Your task to perform on an android device: delete location history Image 0: 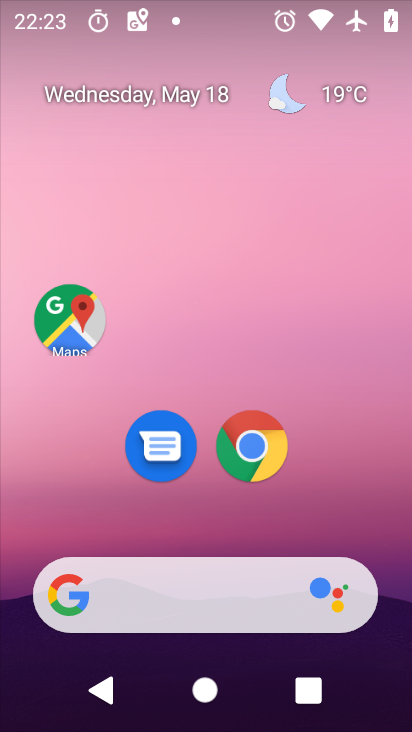
Step 0: press home button
Your task to perform on an android device: delete location history Image 1: 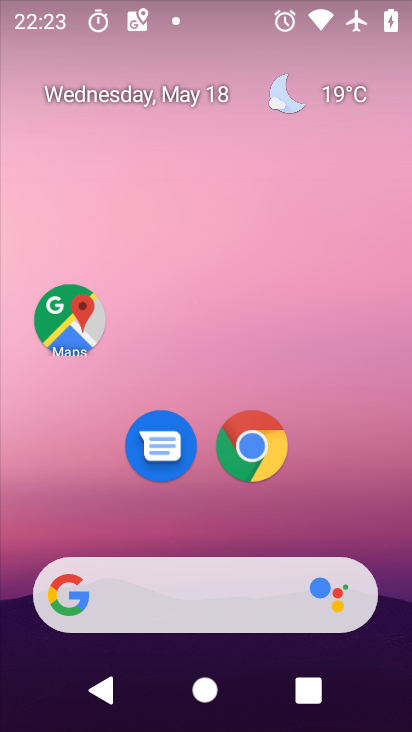
Step 1: drag from (182, 599) to (287, 160)
Your task to perform on an android device: delete location history Image 2: 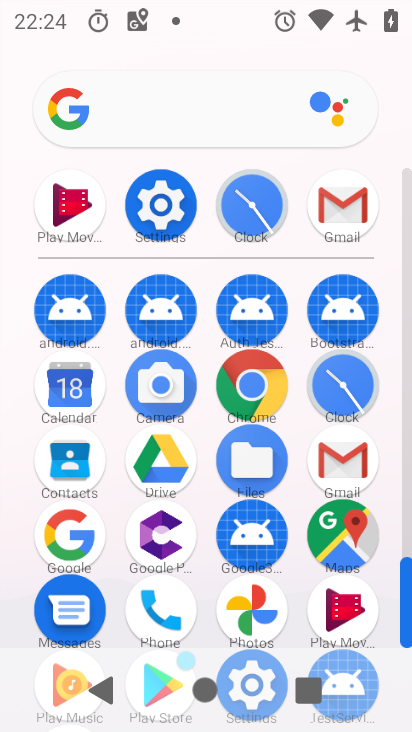
Step 2: click (344, 539)
Your task to perform on an android device: delete location history Image 3: 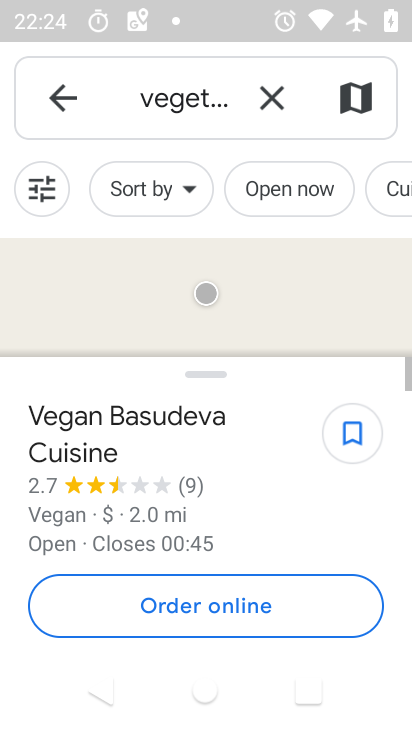
Step 3: click (62, 103)
Your task to perform on an android device: delete location history Image 4: 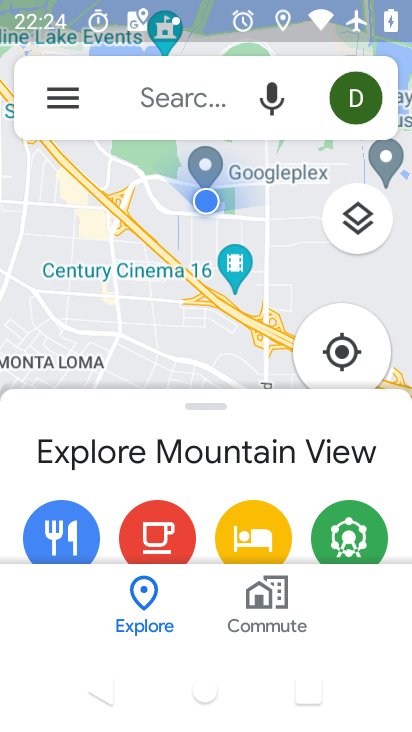
Step 4: click (70, 86)
Your task to perform on an android device: delete location history Image 5: 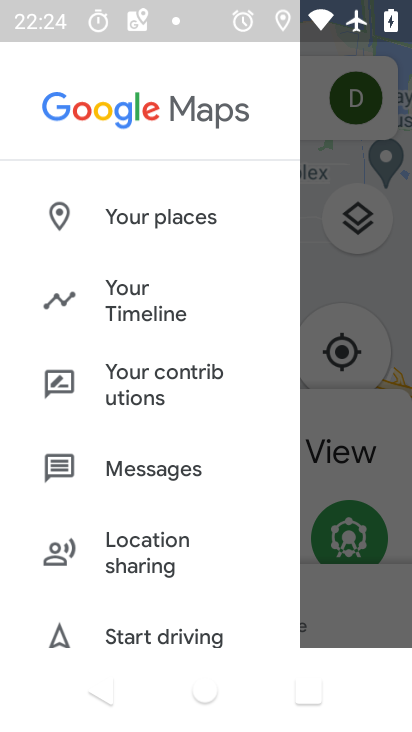
Step 5: click (147, 285)
Your task to perform on an android device: delete location history Image 6: 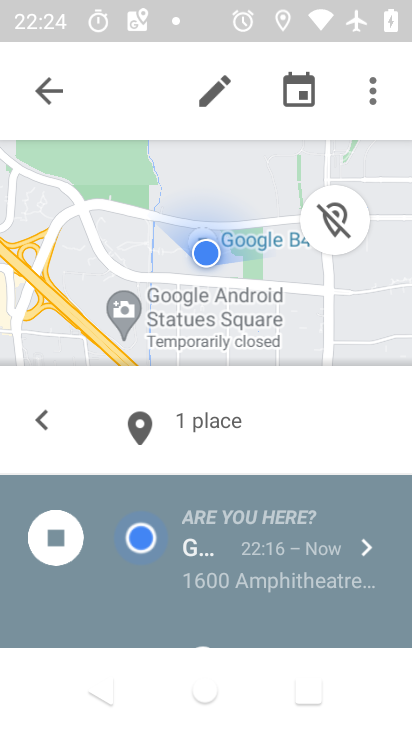
Step 6: click (373, 100)
Your task to perform on an android device: delete location history Image 7: 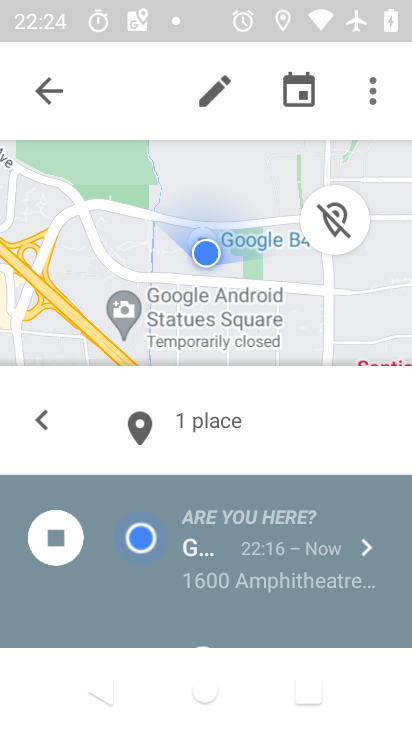
Step 7: click (368, 98)
Your task to perform on an android device: delete location history Image 8: 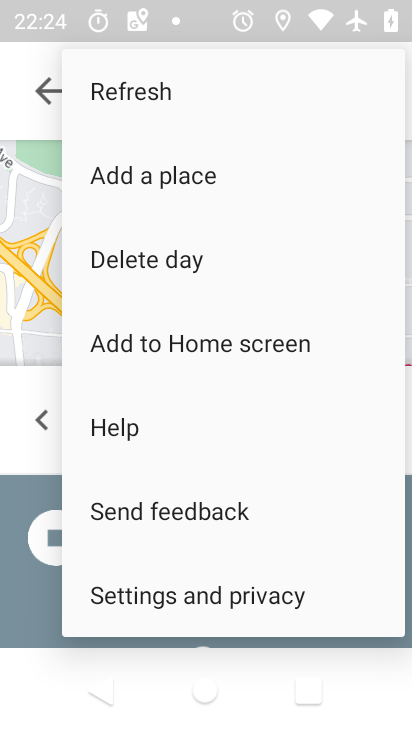
Step 8: click (172, 580)
Your task to perform on an android device: delete location history Image 9: 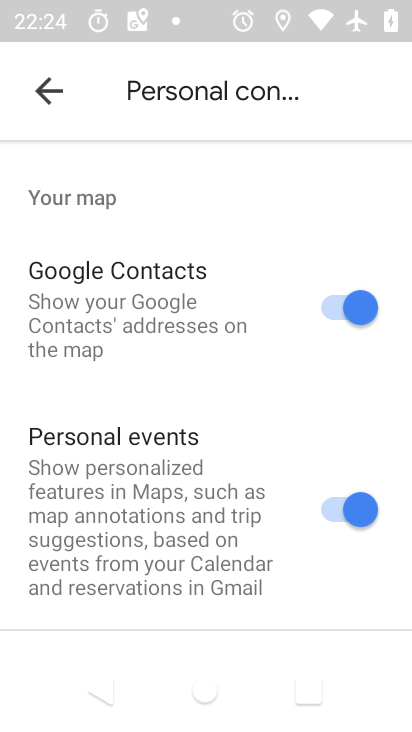
Step 9: drag from (158, 606) to (307, 159)
Your task to perform on an android device: delete location history Image 10: 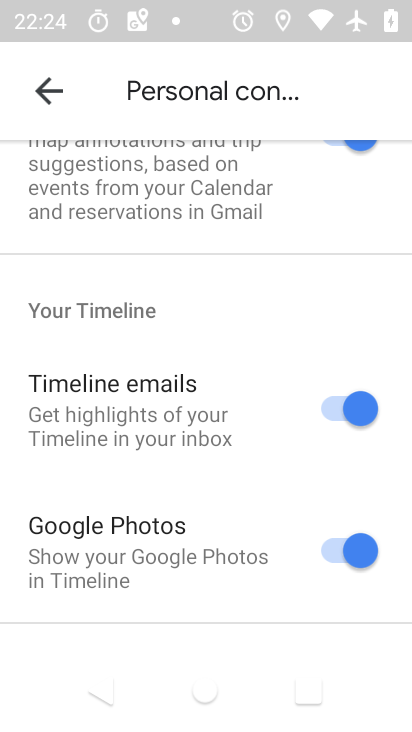
Step 10: drag from (187, 589) to (312, 172)
Your task to perform on an android device: delete location history Image 11: 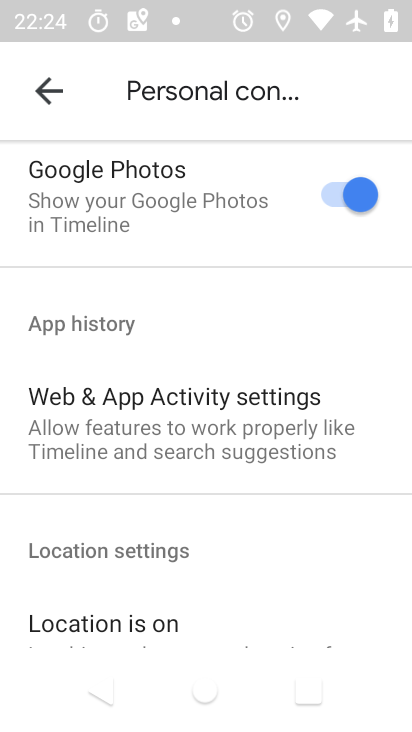
Step 11: drag from (176, 523) to (391, 66)
Your task to perform on an android device: delete location history Image 12: 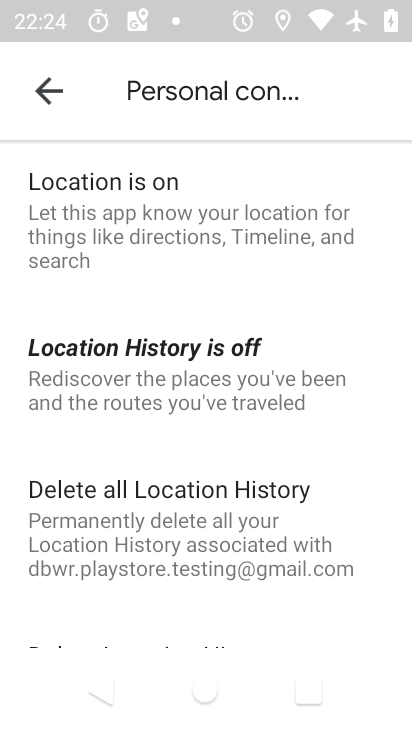
Step 12: click (201, 519)
Your task to perform on an android device: delete location history Image 13: 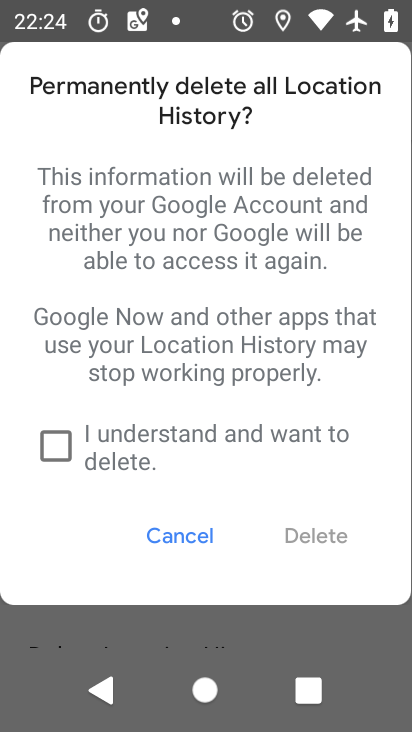
Step 13: click (64, 441)
Your task to perform on an android device: delete location history Image 14: 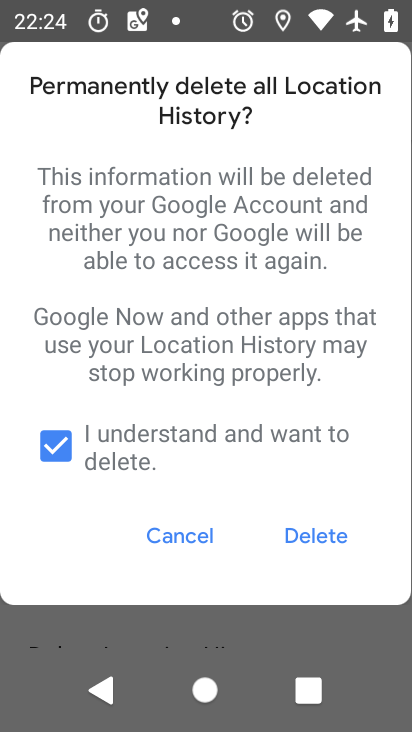
Step 14: click (308, 538)
Your task to perform on an android device: delete location history Image 15: 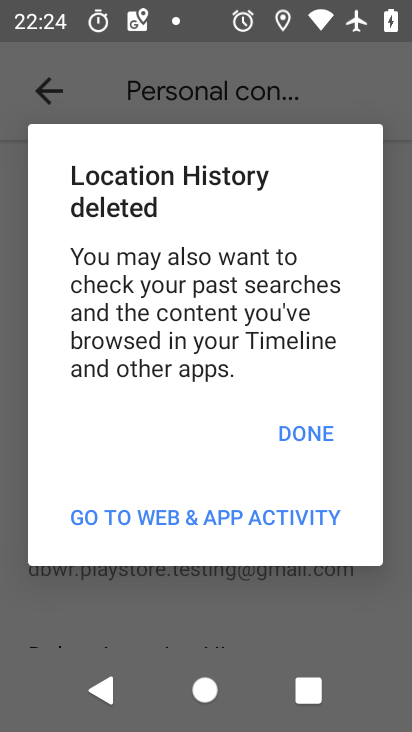
Step 15: click (323, 434)
Your task to perform on an android device: delete location history Image 16: 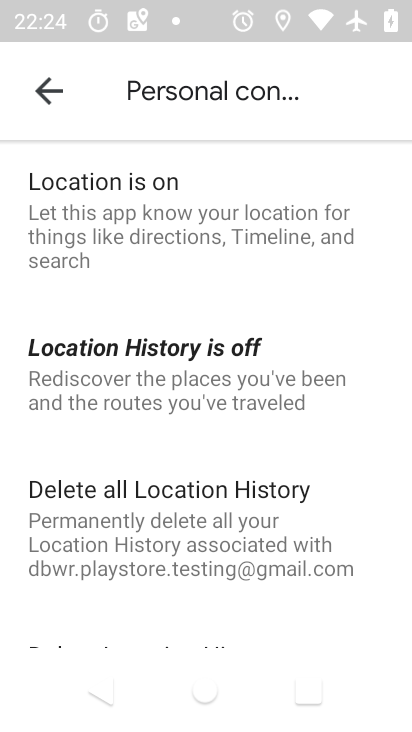
Step 16: task complete